Your task to perform on an android device: set an alarm Image 0: 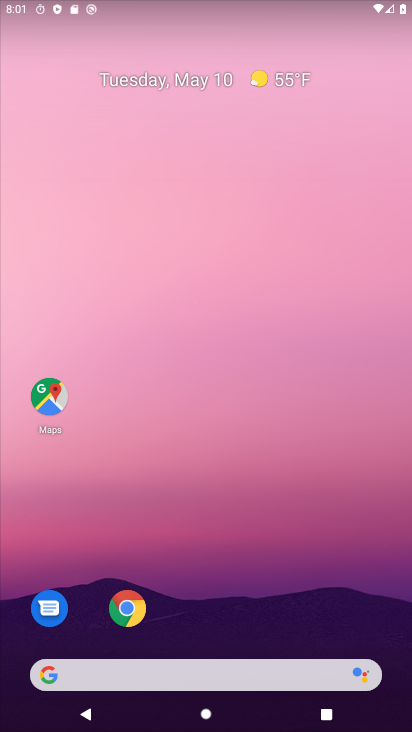
Step 0: drag from (259, 603) to (167, 77)
Your task to perform on an android device: set an alarm Image 1: 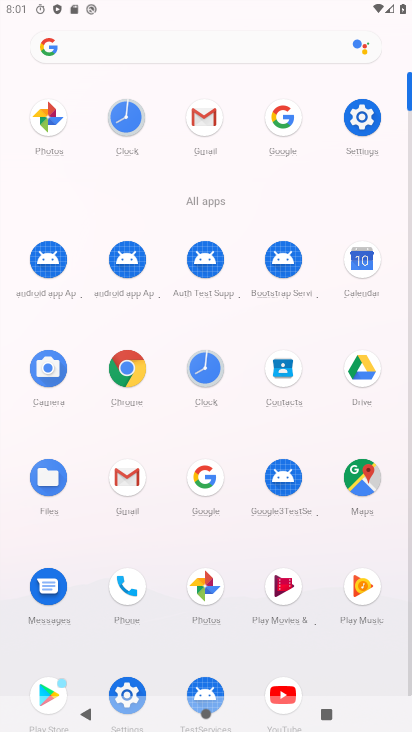
Step 1: click (126, 116)
Your task to perform on an android device: set an alarm Image 2: 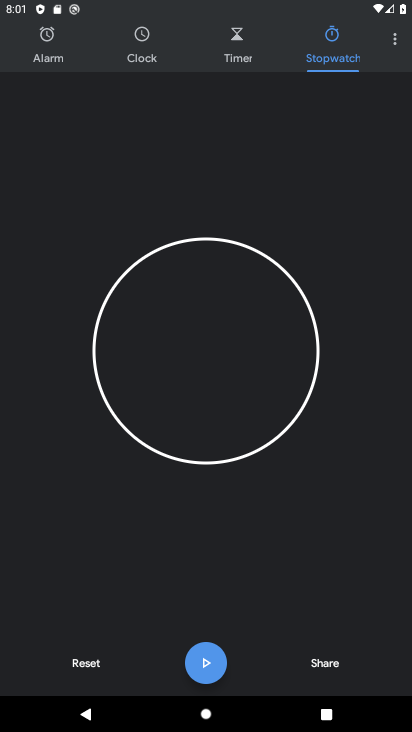
Step 2: click (44, 35)
Your task to perform on an android device: set an alarm Image 3: 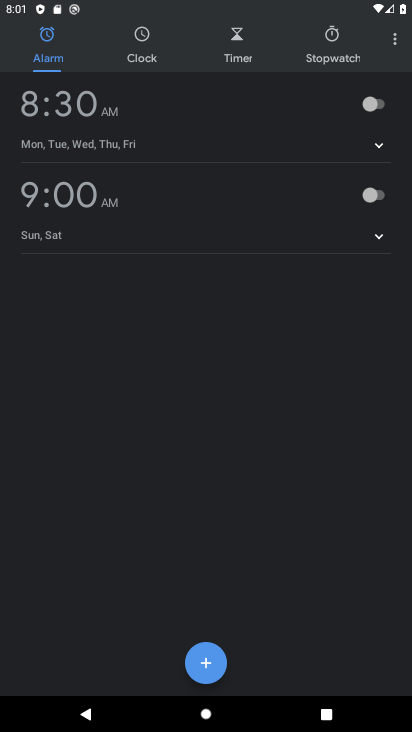
Step 3: click (207, 661)
Your task to perform on an android device: set an alarm Image 4: 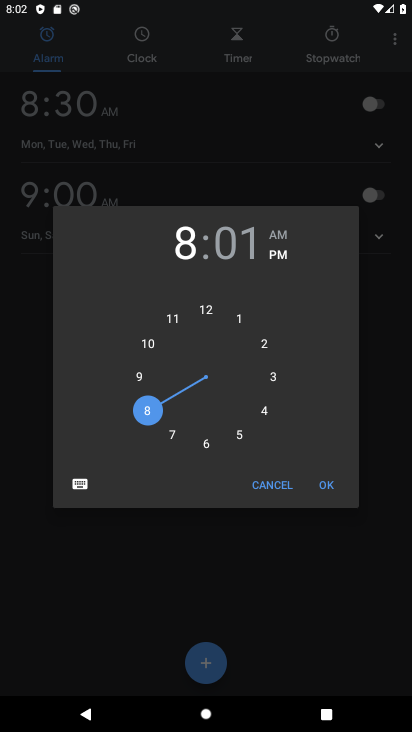
Step 4: click (178, 320)
Your task to perform on an android device: set an alarm Image 5: 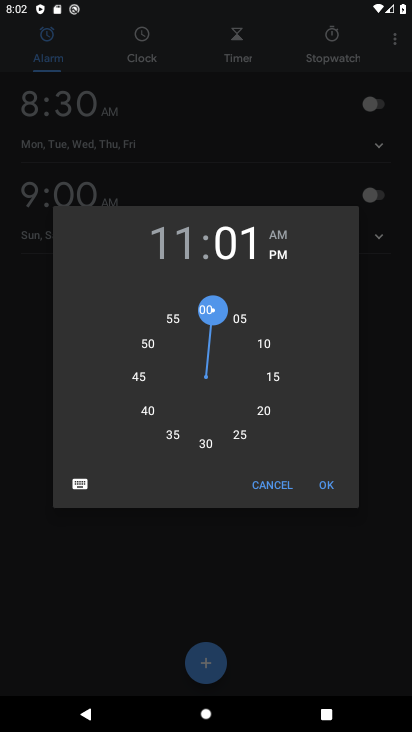
Step 5: click (213, 434)
Your task to perform on an android device: set an alarm Image 6: 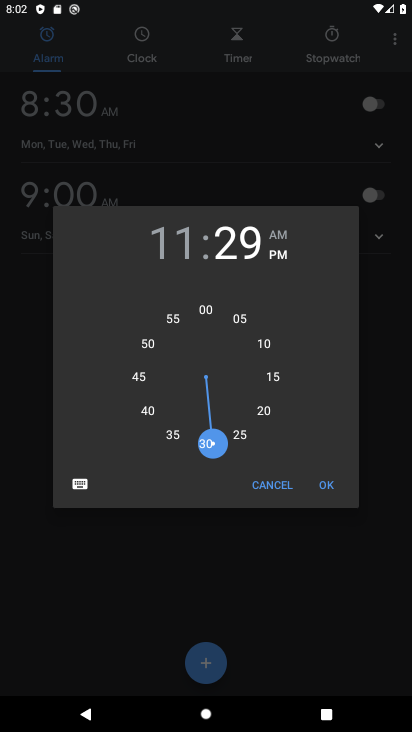
Step 6: click (327, 490)
Your task to perform on an android device: set an alarm Image 7: 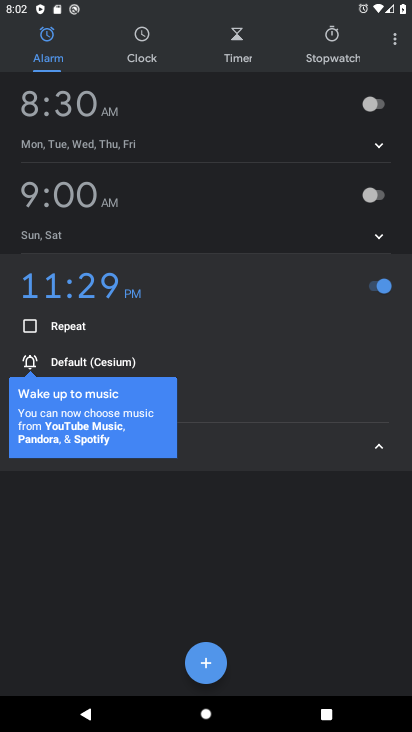
Step 7: click (374, 449)
Your task to perform on an android device: set an alarm Image 8: 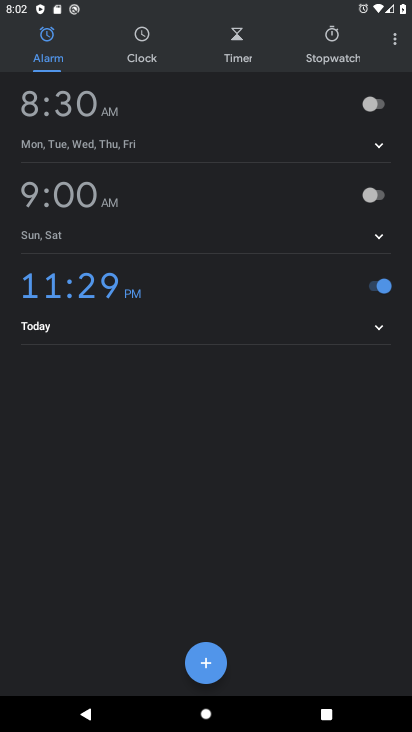
Step 8: task complete